Your task to perform on an android device: turn on priority inbox in the gmail app Image 0: 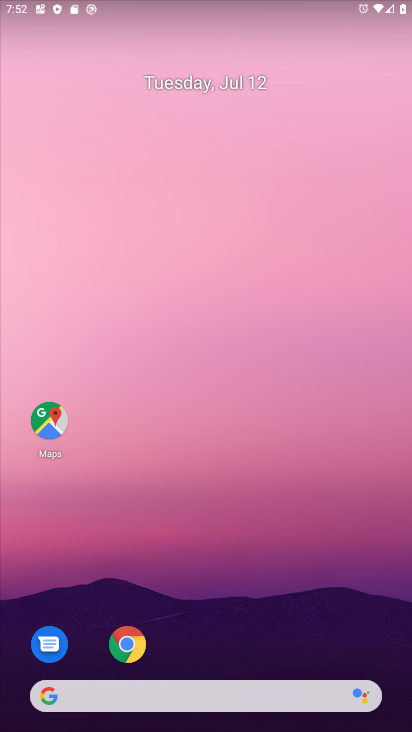
Step 0: drag from (136, 624) to (188, 272)
Your task to perform on an android device: turn on priority inbox in the gmail app Image 1: 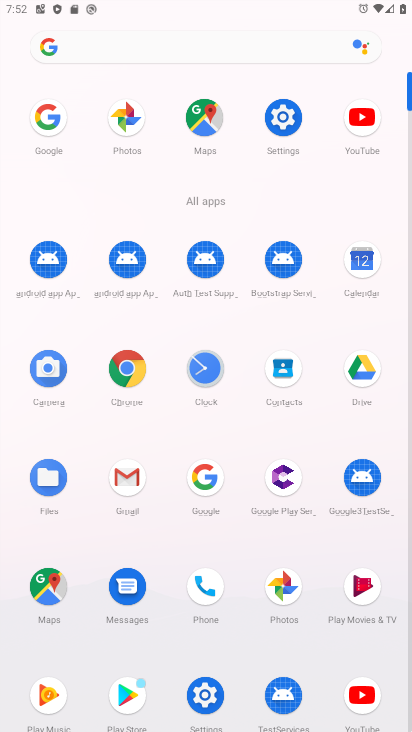
Step 1: click (124, 489)
Your task to perform on an android device: turn on priority inbox in the gmail app Image 2: 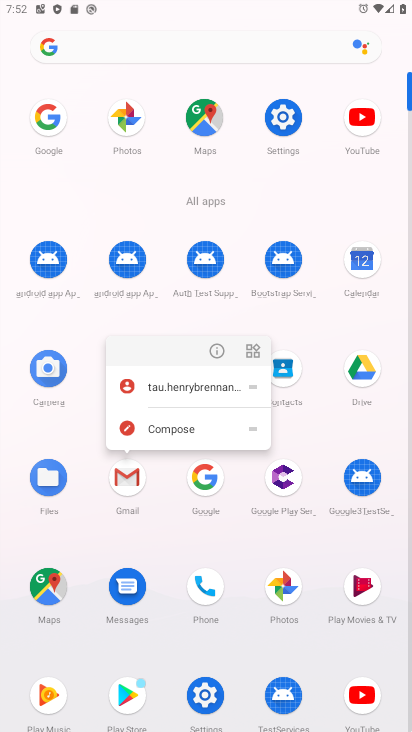
Step 2: click (124, 489)
Your task to perform on an android device: turn on priority inbox in the gmail app Image 3: 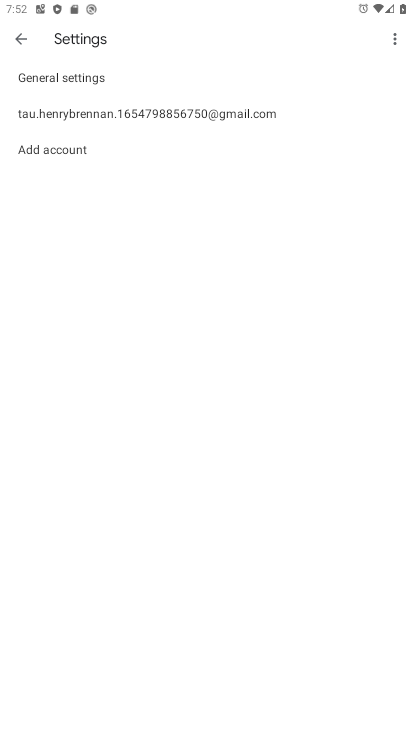
Step 3: click (64, 107)
Your task to perform on an android device: turn on priority inbox in the gmail app Image 4: 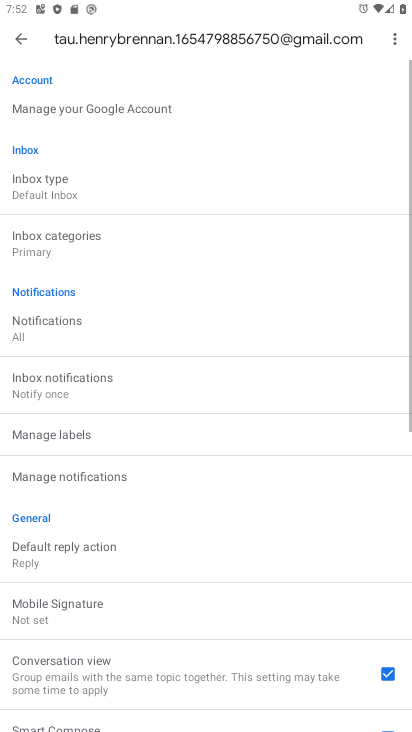
Step 4: click (64, 185)
Your task to perform on an android device: turn on priority inbox in the gmail app Image 5: 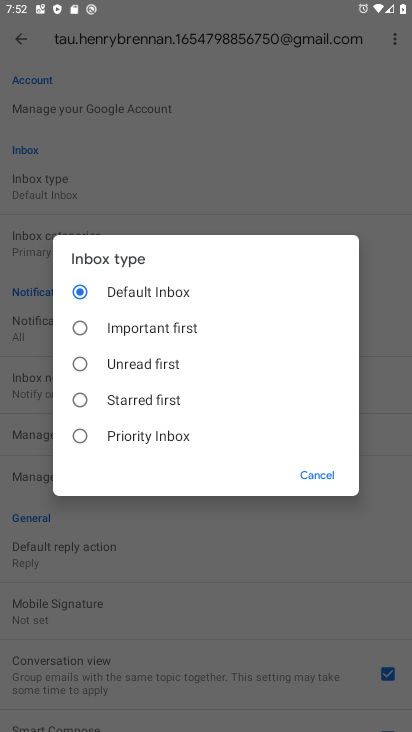
Step 5: click (91, 438)
Your task to perform on an android device: turn on priority inbox in the gmail app Image 6: 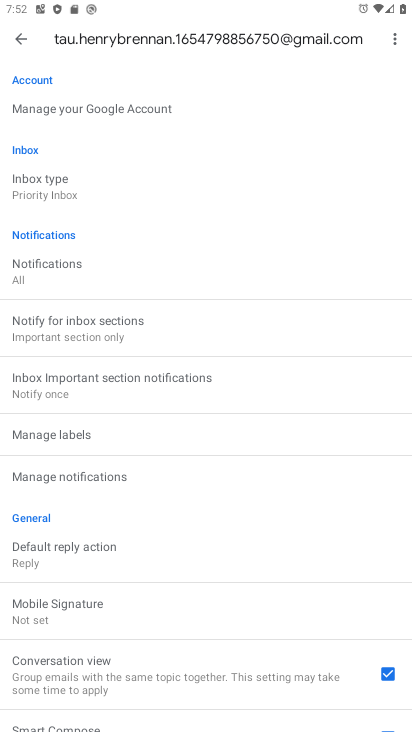
Step 6: task complete